Your task to perform on an android device: Open display settings Image 0: 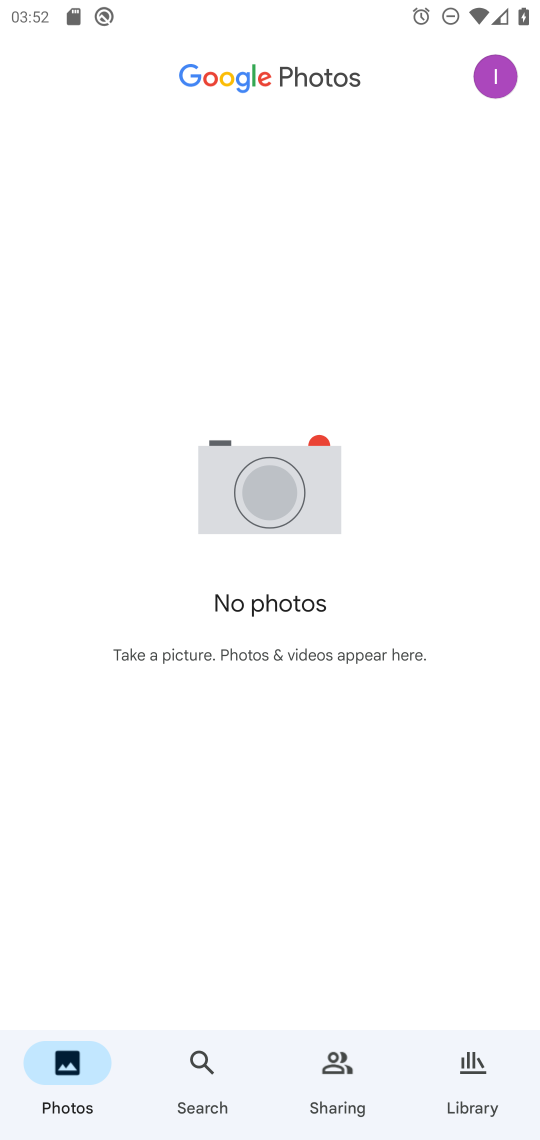
Step 0: press home button
Your task to perform on an android device: Open display settings Image 1: 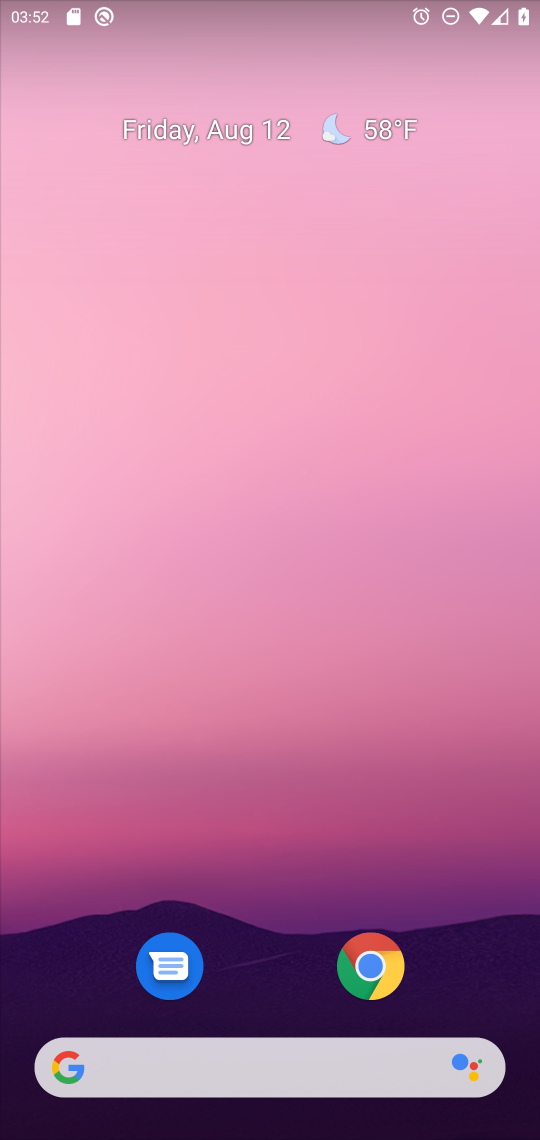
Step 1: drag from (267, 895) to (342, 180)
Your task to perform on an android device: Open display settings Image 2: 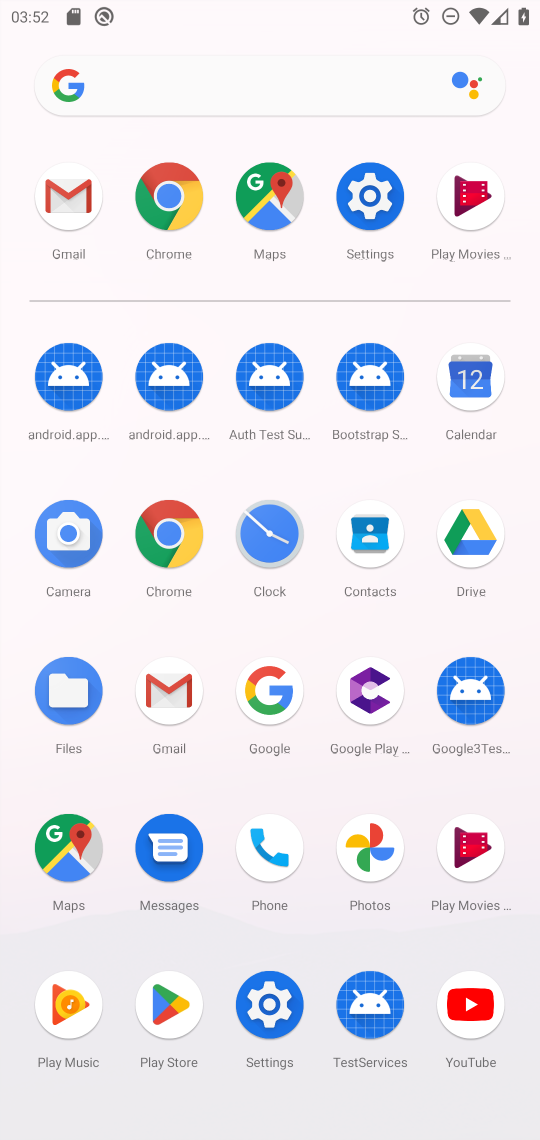
Step 2: click (279, 992)
Your task to perform on an android device: Open display settings Image 3: 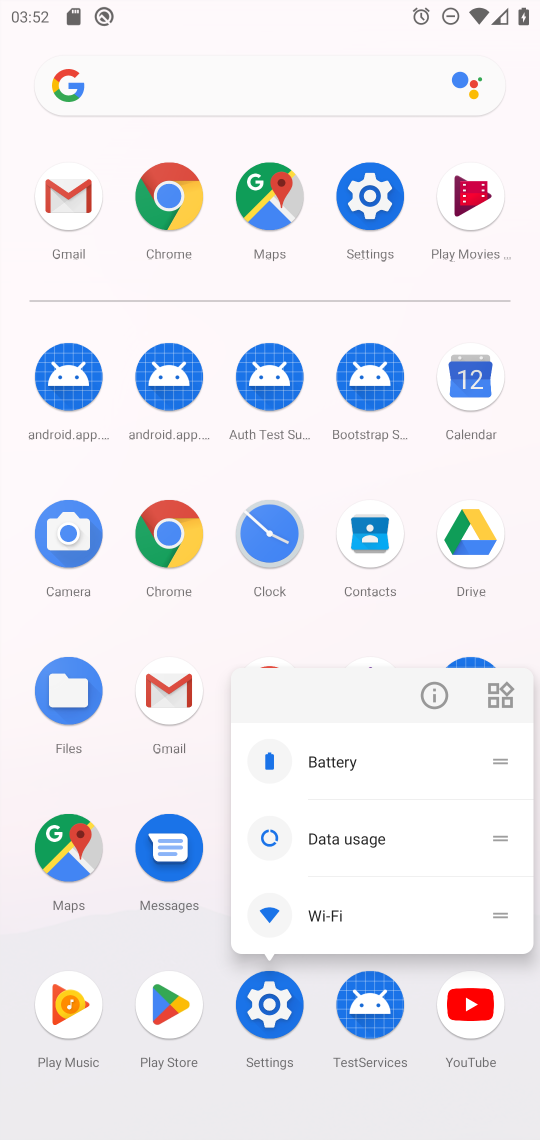
Step 3: click (277, 1002)
Your task to perform on an android device: Open display settings Image 4: 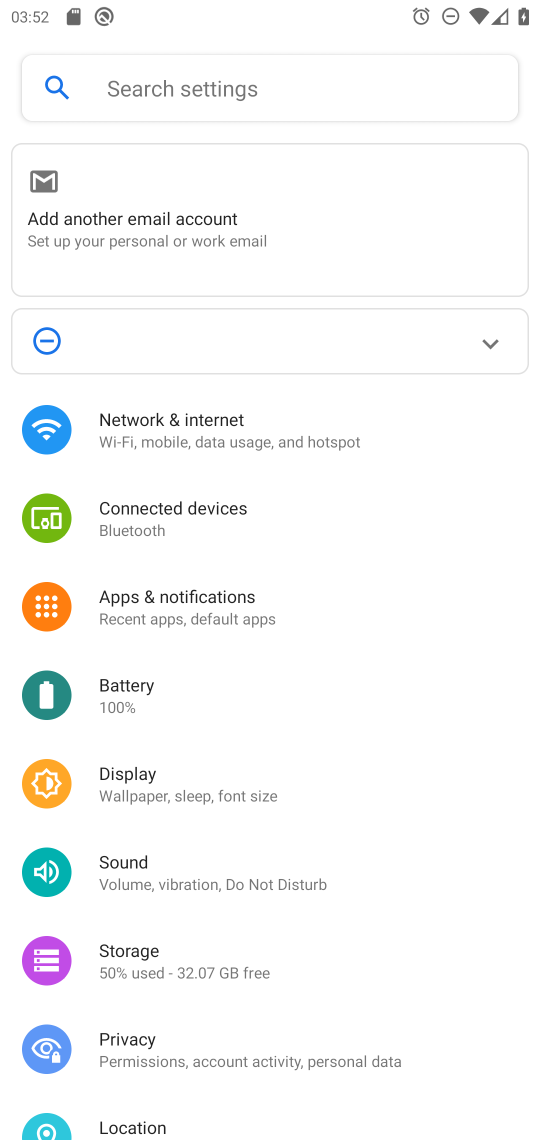
Step 4: click (147, 781)
Your task to perform on an android device: Open display settings Image 5: 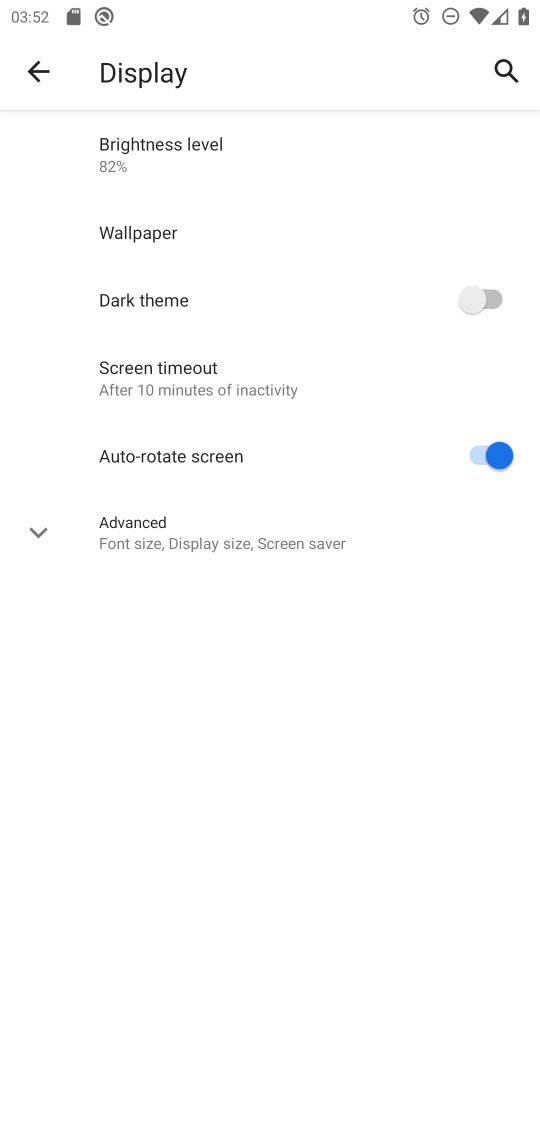
Step 5: task complete